Your task to perform on an android device: open chrome and create a bookmark for the current page Image 0: 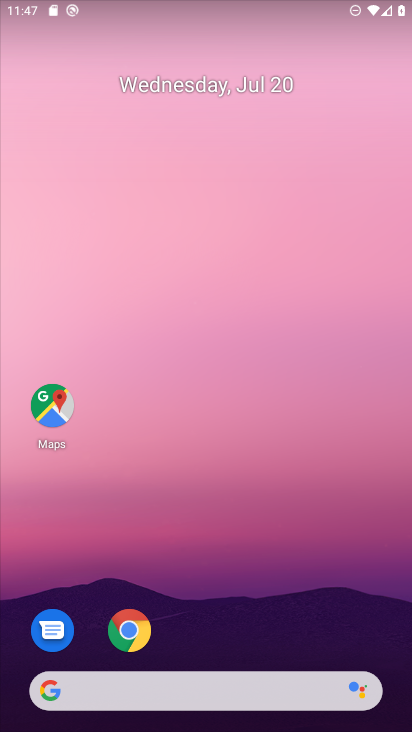
Step 0: click (120, 625)
Your task to perform on an android device: open chrome and create a bookmark for the current page Image 1: 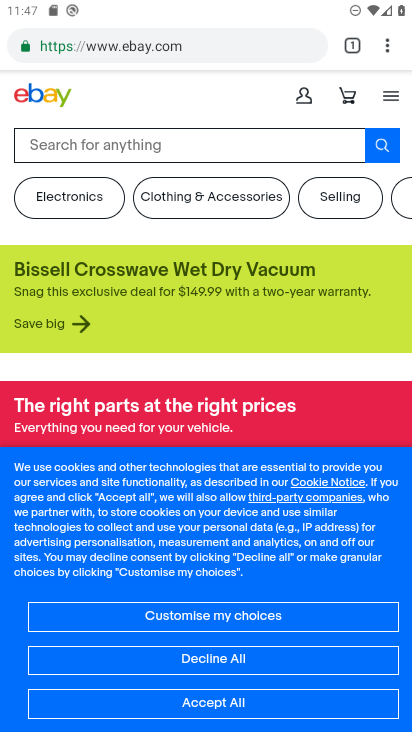
Step 1: click (384, 37)
Your task to perform on an android device: open chrome and create a bookmark for the current page Image 2: 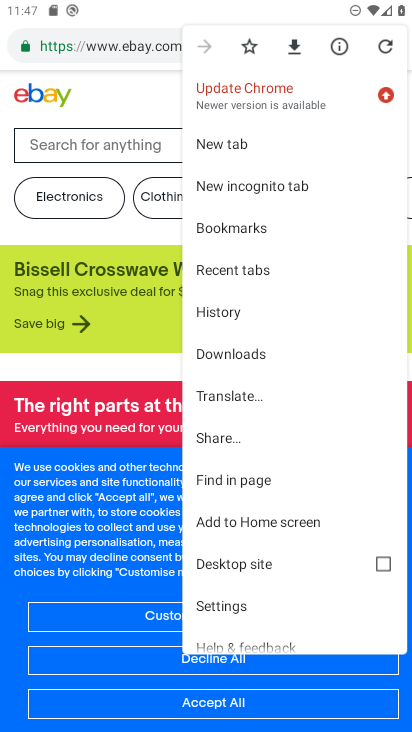
Step 2: click (245, 49)
Your task to perform on an android device: open chrome and create a bookmark for the current page Image 3: 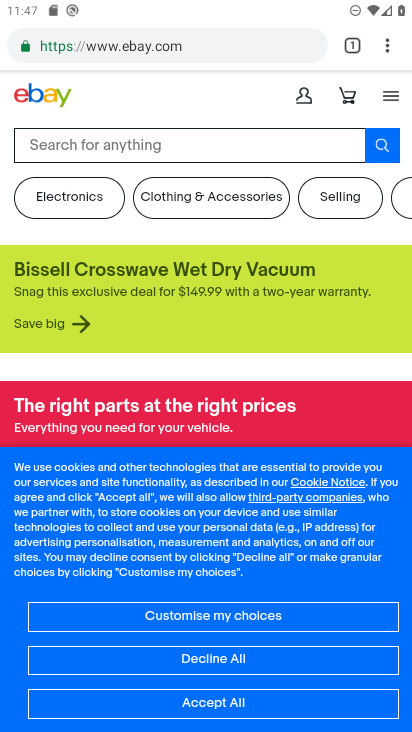
Step 3: task complete